Your task to perform on an android device: Turn on the flashlight Image 0: 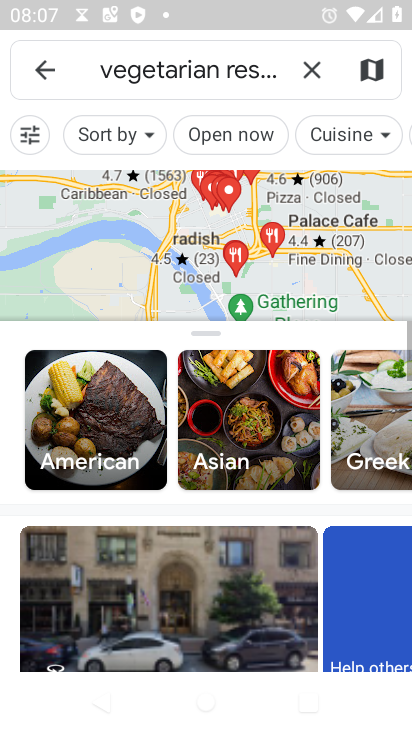
Step 0: press home button
Your task to perform on an android device: Turn on the flashlight Image 1: 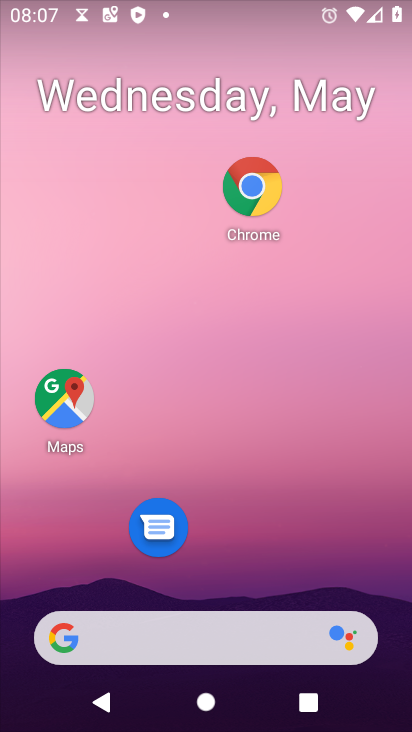
Step 1: task complete